Your task to perform on an android device: show emergency info Image 0: 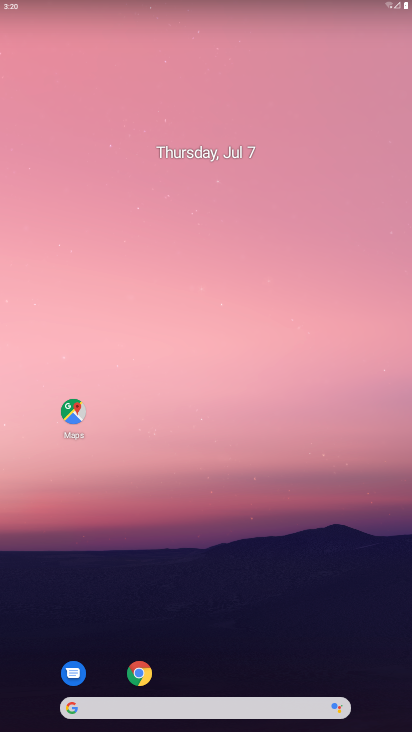
Step 0: drag from (237, 708) to (303, 154)
Your task to perform on an android device: show emergency info Image 1: 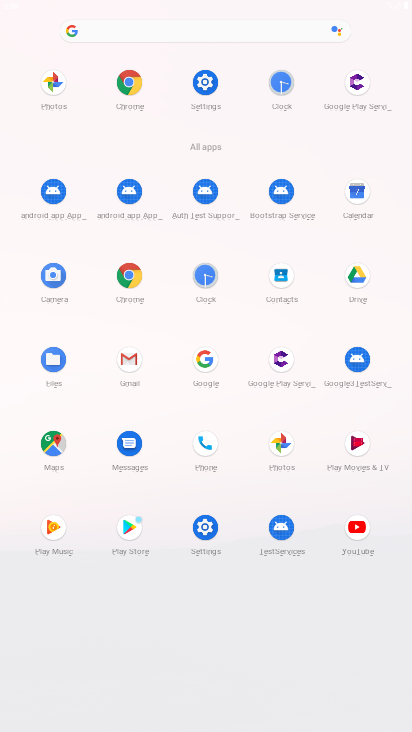
Step 1: click (207, 529)
Your task to perform on an android device: show emergency info Image 2: 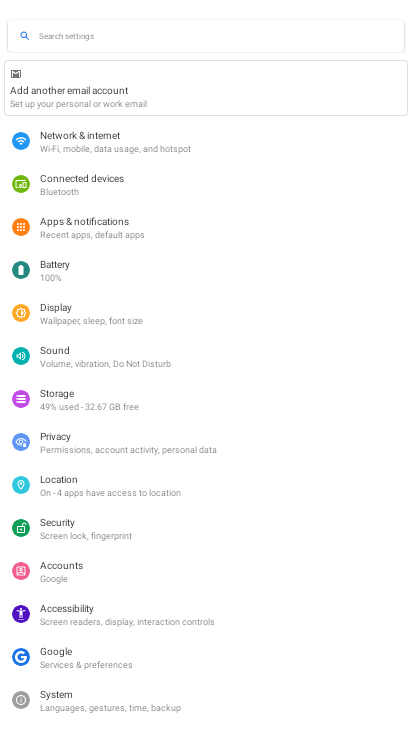
Step 2: drag from (77, 518) to (139, 342)
Your task to perform on an android device: show emergency info Image 3: 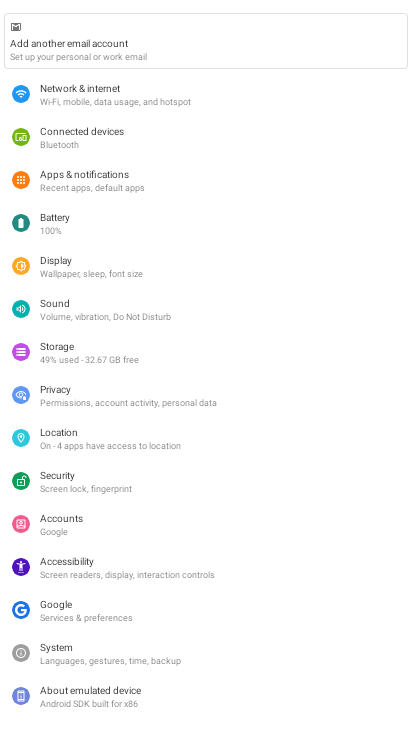
Step 3: click (81, 695)
Your task to perform on an android device: show emergency info Image 4: 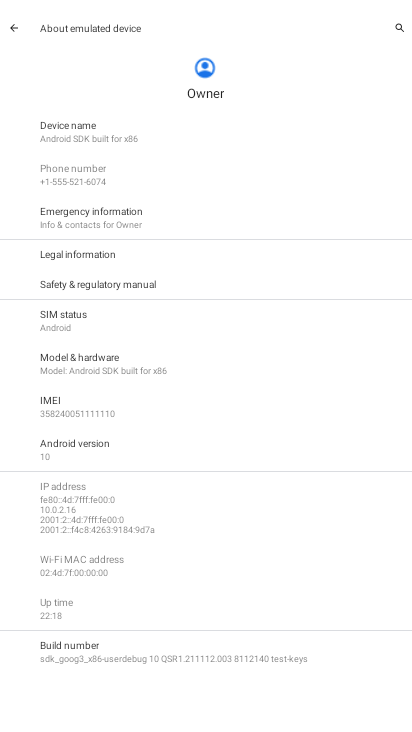
Step 4: click (142, 211)
Your task to perform on an android device: show emergency info Image 5: 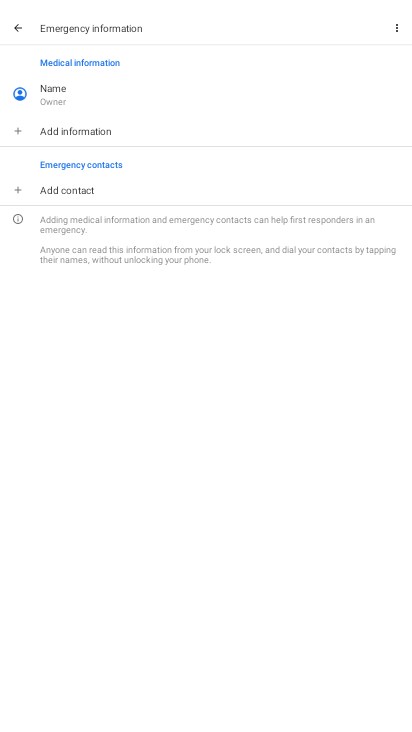
Step 5: task complete